Your task to perform on an android device: turn off airplane mode Image 0: 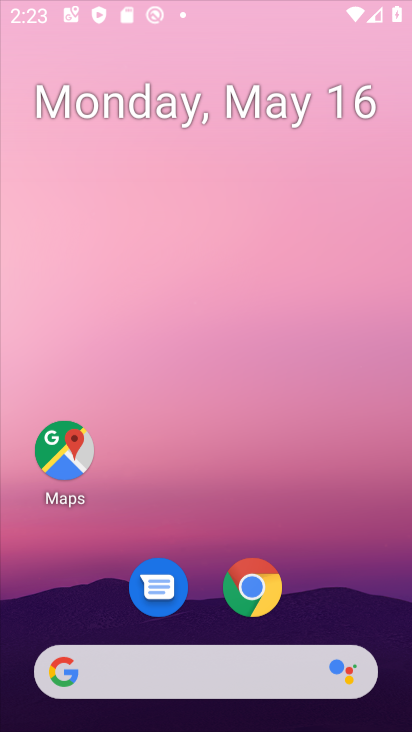
Step 0: drag from (333, 479) to (247, 185)
Your task to perform on an android device: turn off airplane mode Image 1: 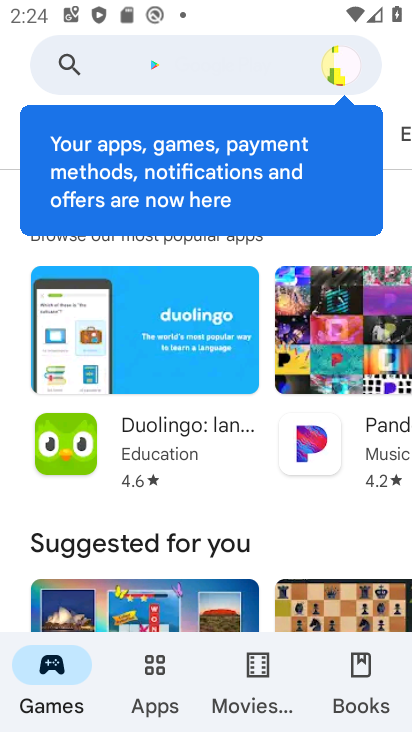
Step 1: press back button
Your task to perform on an android device: turn off airplane mode Image 2: 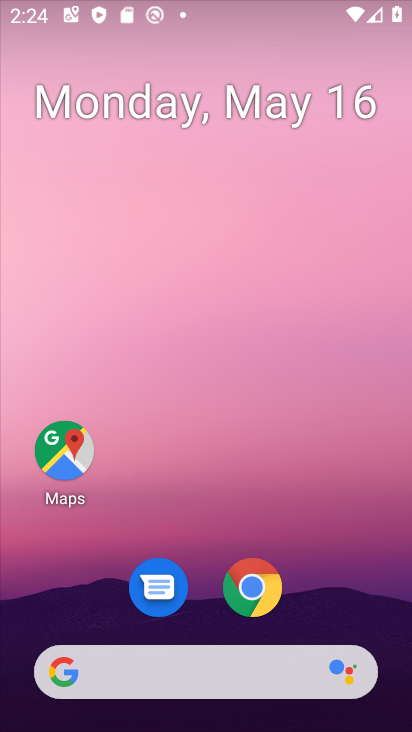
Step 2: drag from (292, 465) to (238, 41)
Your task to perform on an android device: turn off airplane mode Image 3: 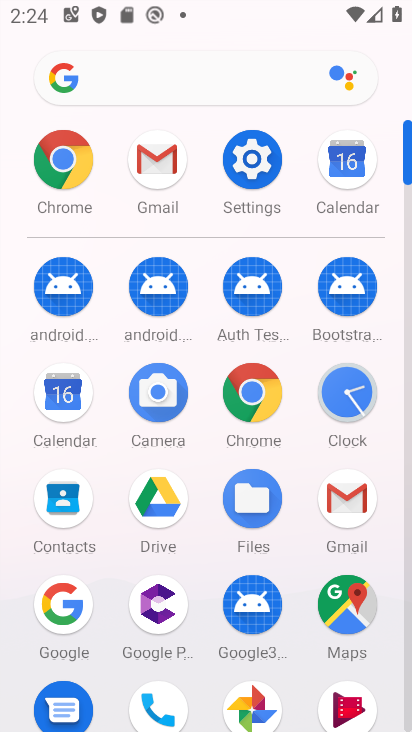
Step 3: click (251, 179)
Your task to perform on an android device: turn off airplane mode Image 4: 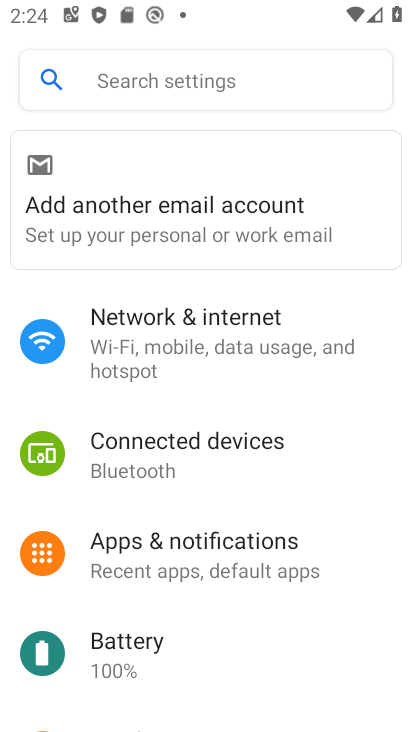
Step 4: click (211, 554)
Your task to perform on an android device: turn off airplane mode Image 5: 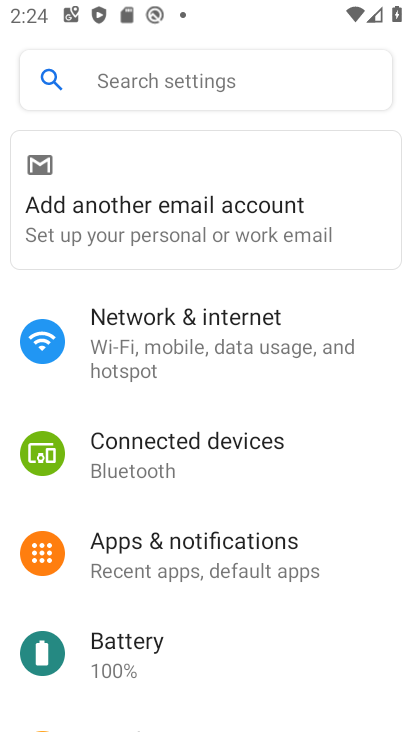
Step 5: click (216, 561)
Your task to perform on an android device: turn off airplane mode Image 6: 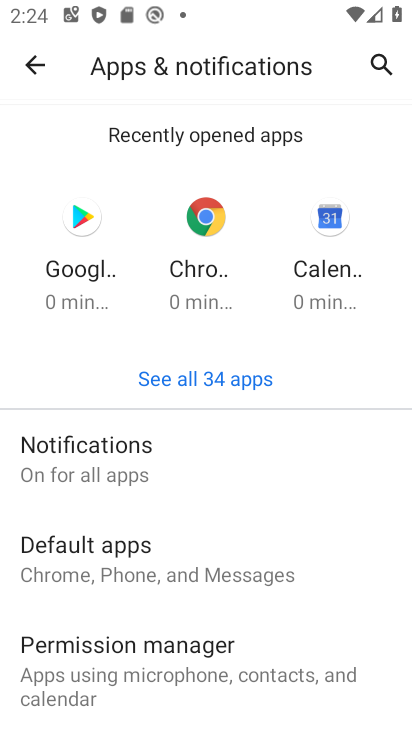
Step 6: click (96, 464)
Your task to perform on an android device: turn off airplane mode Image 7: 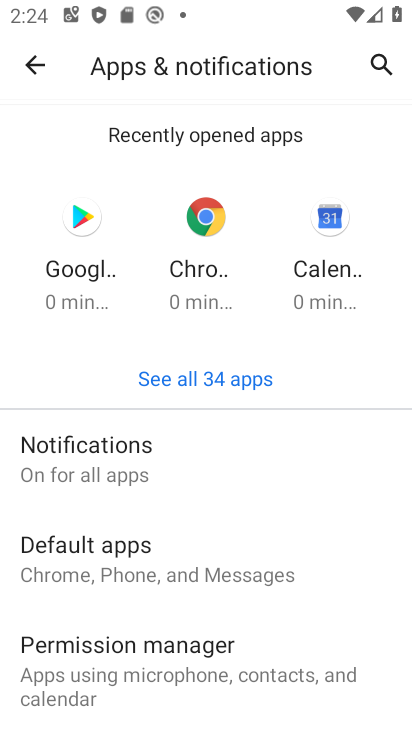
Step 7: click (96, 464)
Your task to perform on an android device: turn off airplane mode Image 8: 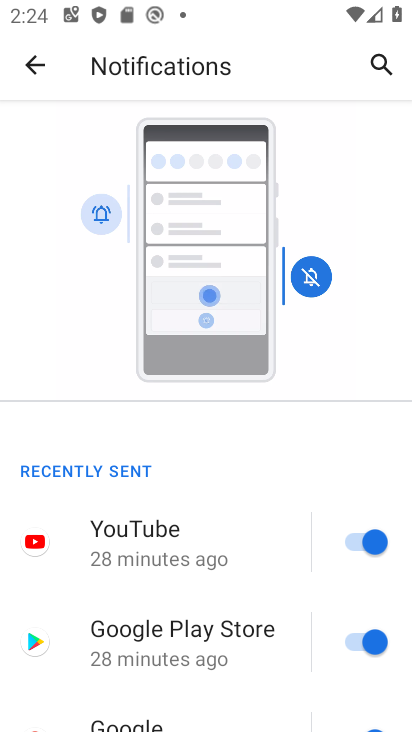
Step 8: drag from (252, 546) to (189, 145)
Your task to perform on an android device: turn off airplane mode Image 9: 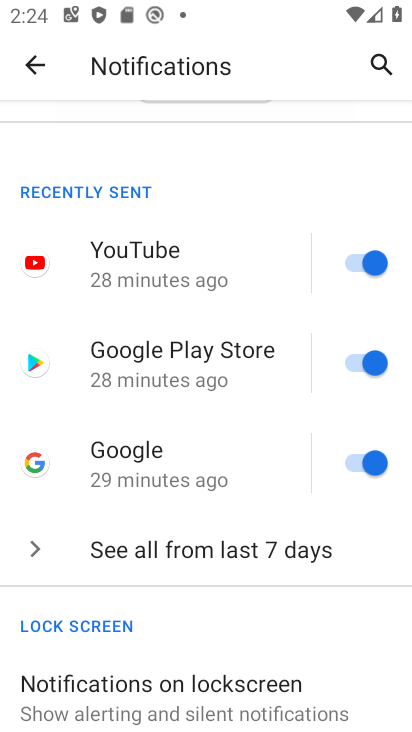
Step 9: drag from (193, 511) to (157, 247)
Your task to perform on an android device: turn off airplane mode Image 10: 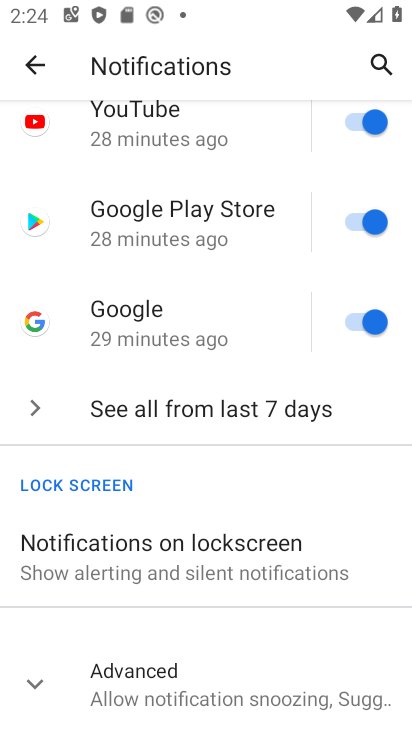
Step 10: drag from (236, 621) to (242, 266)
Your task to perform on an android device: turn off airplane mode Image 11: 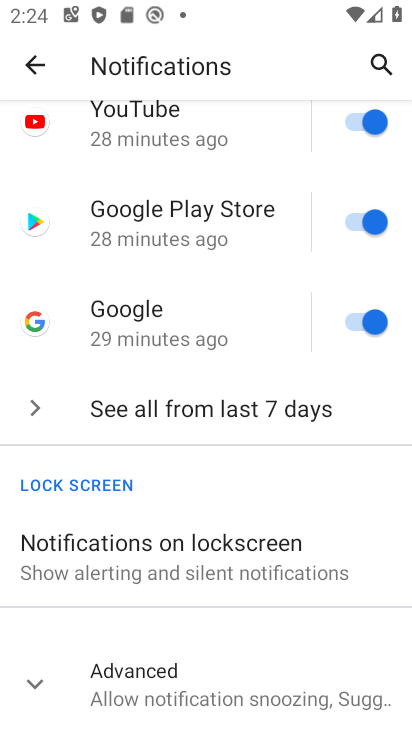
Step 11: click (139, 673)
Your task to perform on an android device: turn off airplane mode Image 12: 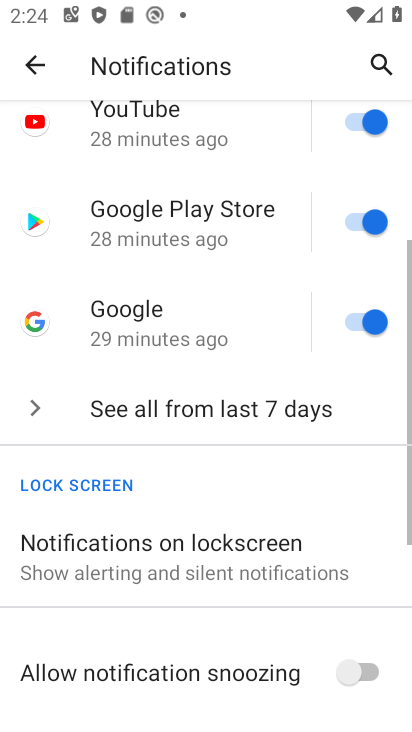
Step 12: drag from (236, 613) to (192, 137)
Your task to perform on an android device: turn off airplane mode Image 13: 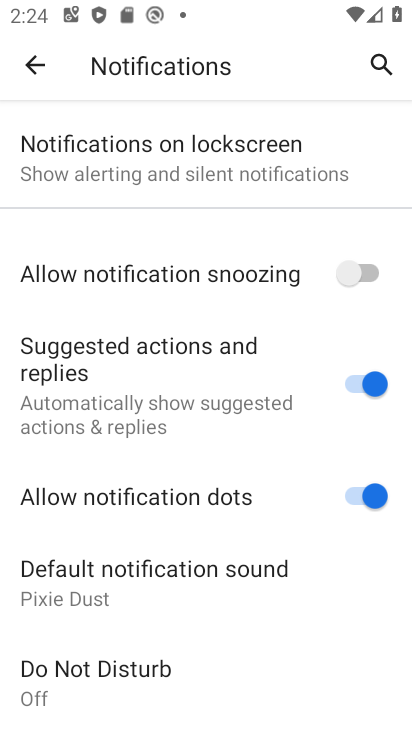
Step 13: click (372, 503)
Your task to perform on an android device: turn off airplane mode Image 14: 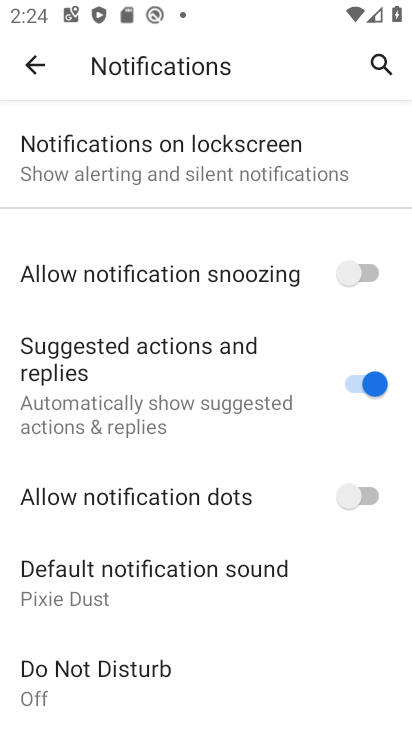
Step 14: task complete